Your task to perform on an android device: turn off picture-in-picture Image 0: 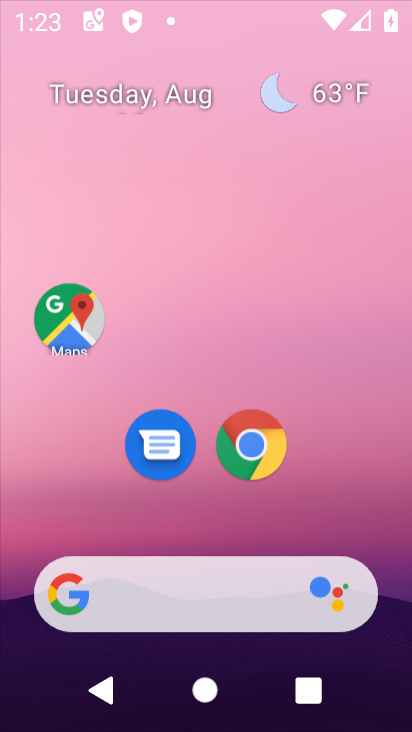
Step 0: press home button
Your task to perform on an android device: turn off picture-in-picture Image 1: 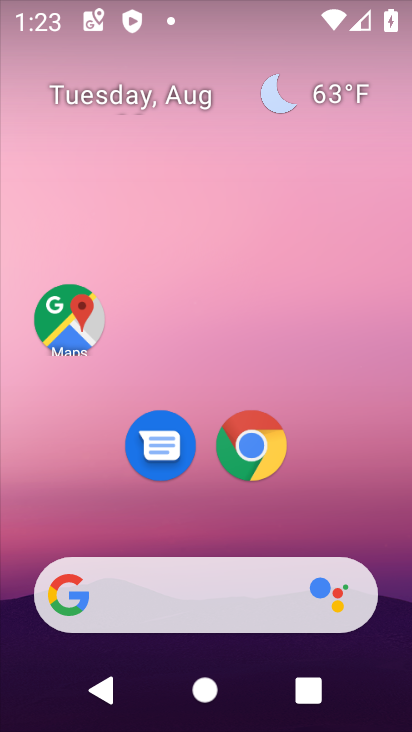
Step 1: click (249, 444)
Your task to perform on an android device: turn off picture-in-picture Image 2: 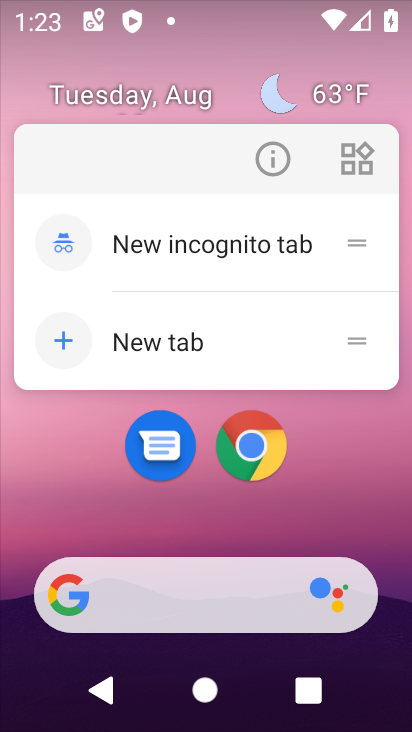
Step 2: click (268, 156)
Your task to perform on an android device: turn off picture-in-picture Image 3: 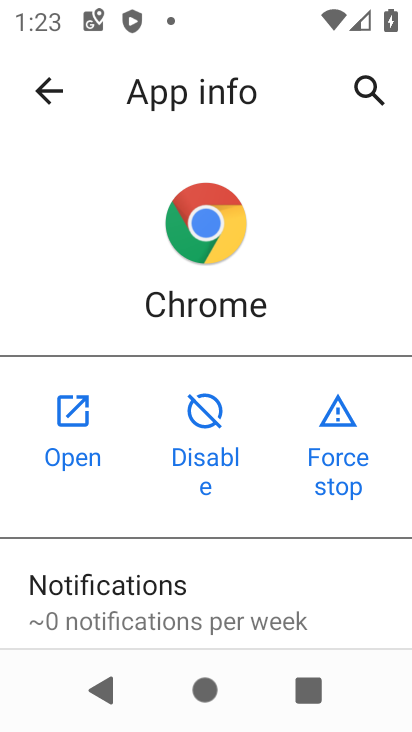
Step 3: drag from (202, 588) to (254, 156)
Your task to perform on an android device: turn off picture-in-picture Image 4: 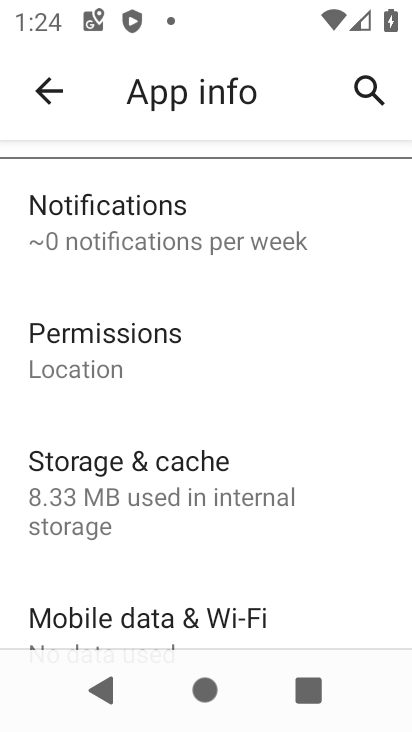
Step 4: drag from (217, 598) to (269, 231)
Your task to perform on an android device: turn off picture-in-picture Image 5: 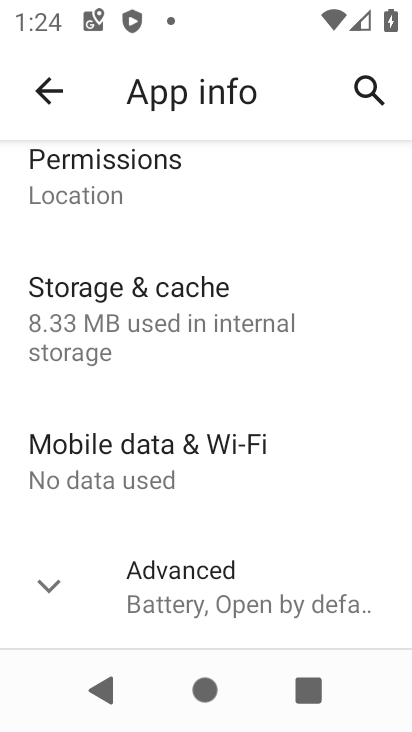
Step 5: click (49, 587)
Your task to perform on an android device: turn off picture-in-picture Image 6: 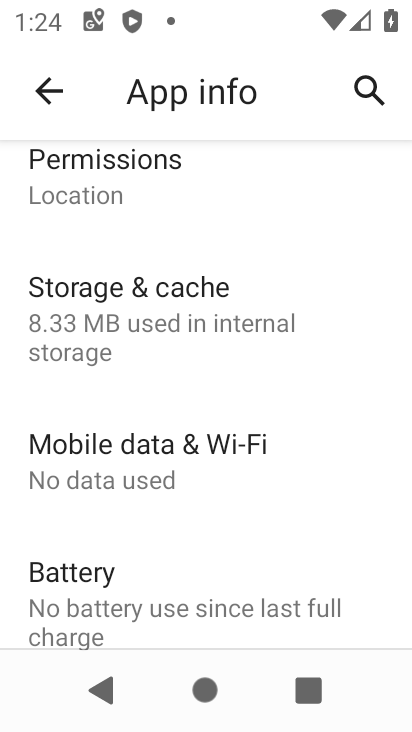
Step 6: drag from (169, 581) to (252, 138)
Your task to perform on an android device: turn off picture-in-picture Image 7: 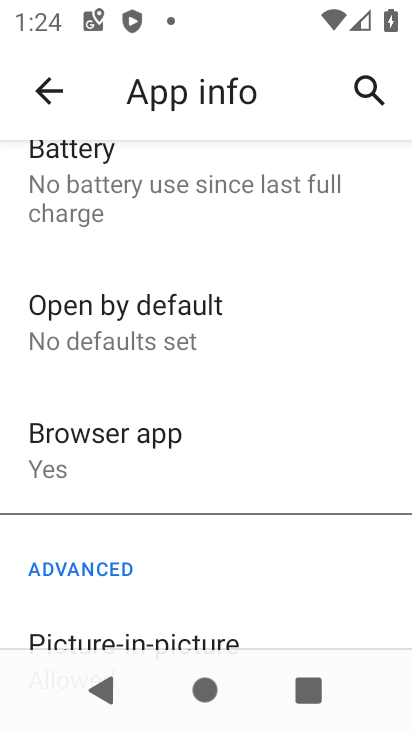
Step 7: drag from (194, 580) to (270, 221)
Your task to perform on an android device: turn off picture-in-picture Image 8: 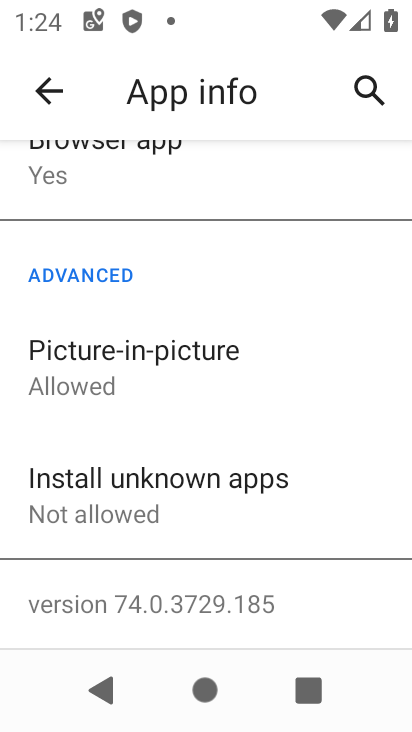
Step 8: click (124, 369)
Your task to perform on an android device: turn off picture-in-picture Image 9: 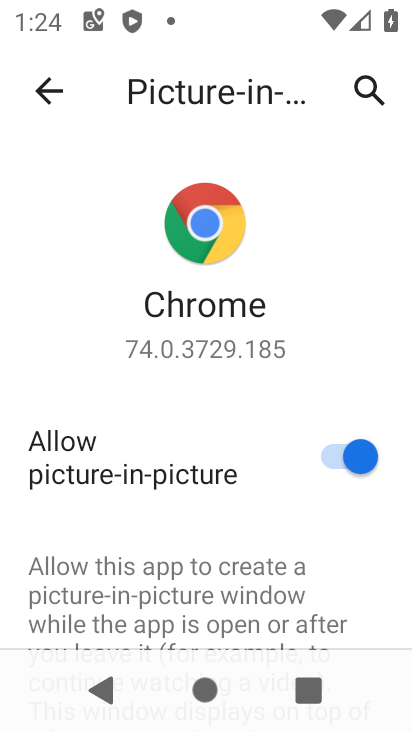
Step 9: click (335, 453)
Your task to perform on an android device: turn off picture-in-picture Image 10: 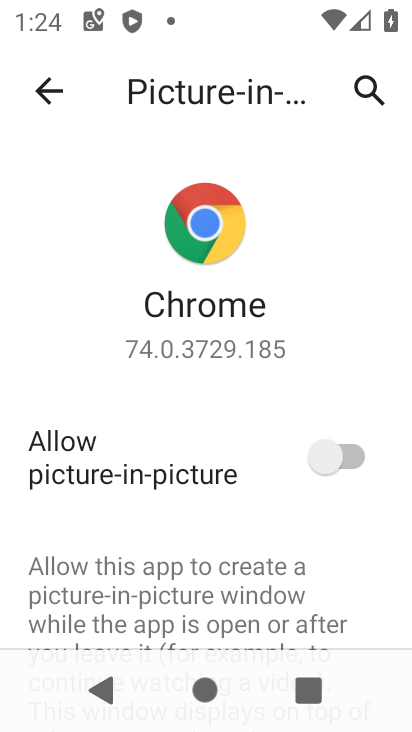
Step 10: task complete